Your task to perform on an android device: delete a single message in the gmail app Image 0: 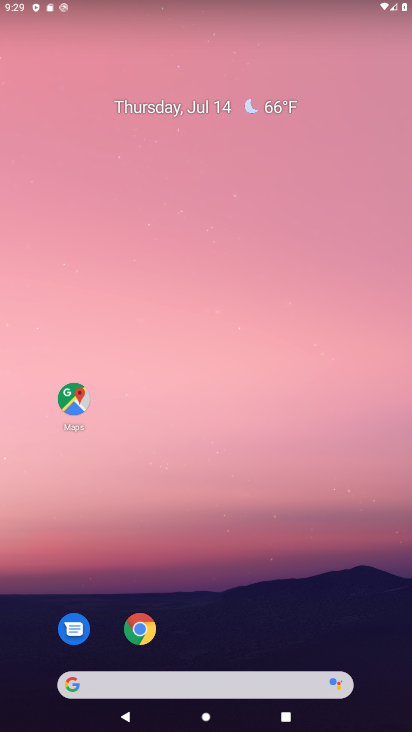
Step 0: drag from (389, 686) to (384, 396)
Your task to perform on an android device: delete a single message in the gmail app Image 1: 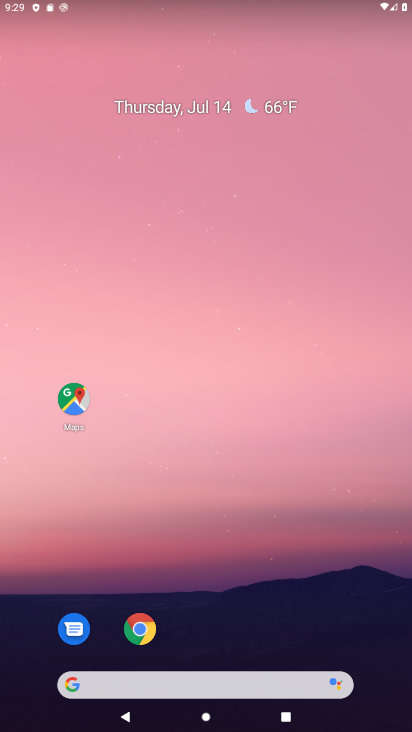
Step 1: drag from (377, 678) to (290, 112)
Your task to perform on an android device: delete a single message in the gmail app Image 2: 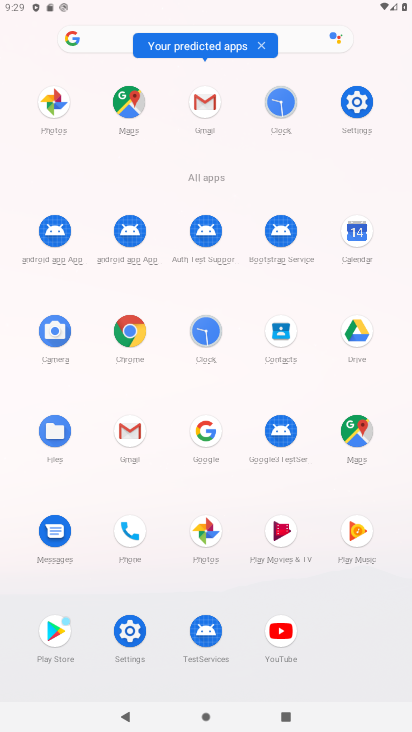
Step 2: click (123, 431)
Your task to perform on an android device: delete a single message in the gmail app Image 3: 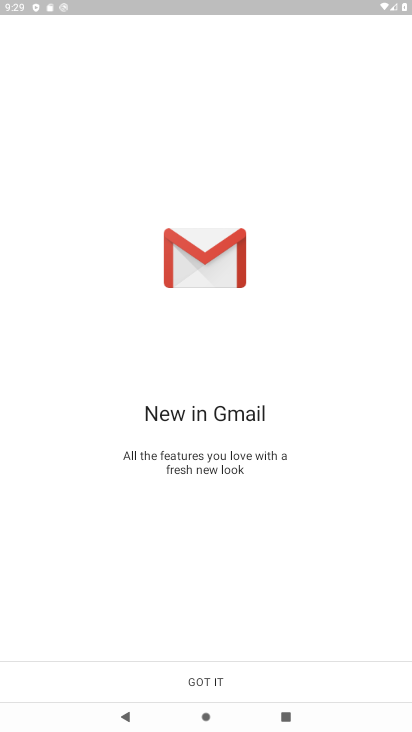
Step 3: click (216, 686)
Your task to perform on an android device: delete a single message in the gmail app Image 4: 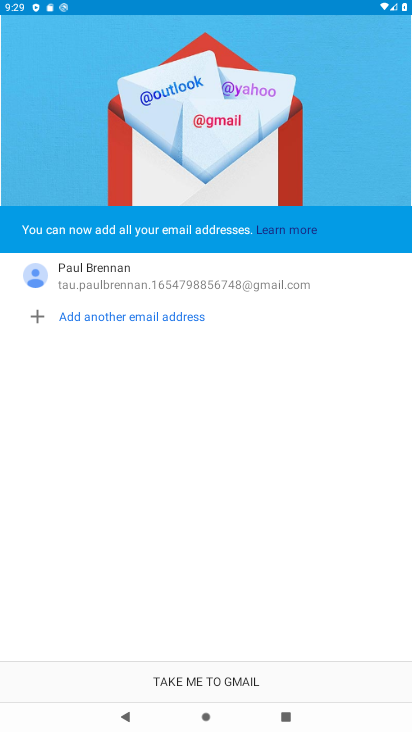
Step 4: click (216, 686)
Your task to perform on an android device: delete a single message in the gmail app Image 5: 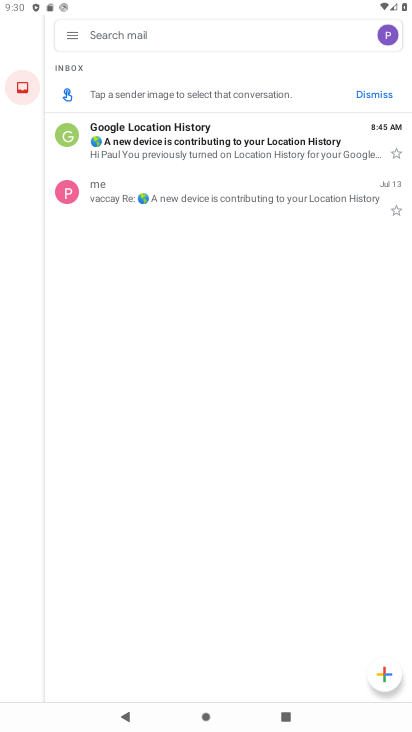
Step 5: click (236, 139)
Your task to perform on an android device: delete a single message in the gmail app Image 6: 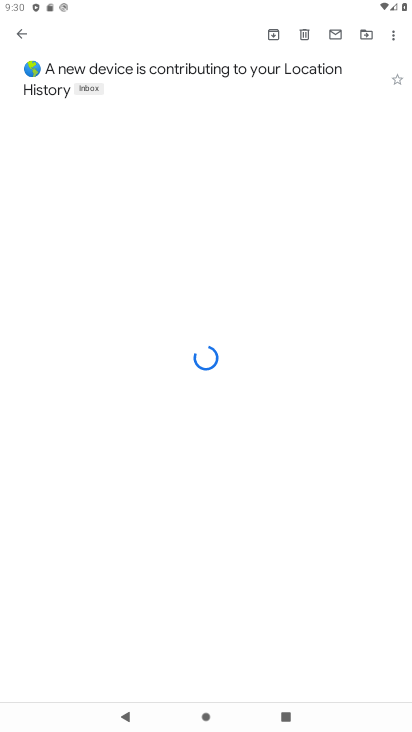
Step 6: click (305, 33)
Your task to perform on an android device: delete a single message in the gmail app Image 7: 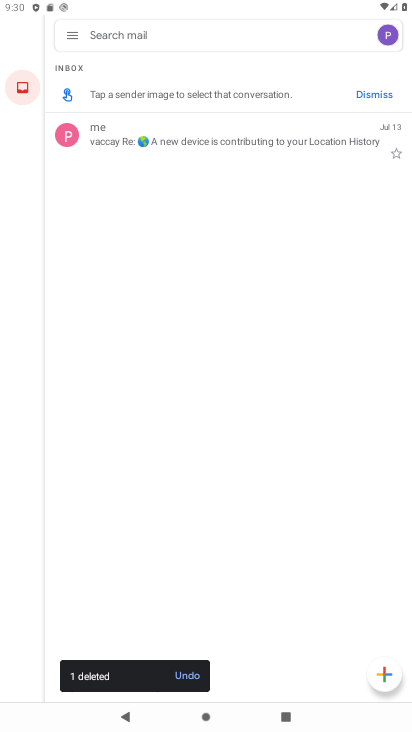
Step 7: task complete